Your task to perform on an android device: Open privacy settings Image 0: 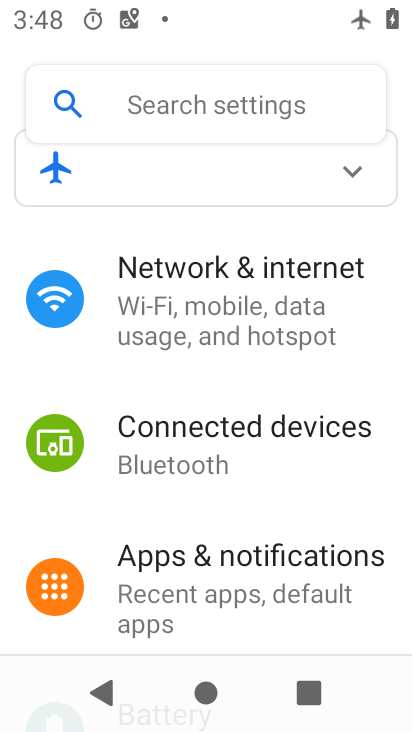
Step 0: drag from (190, 583) to (330, 22)
Your task to perform on an android device: Open privacy settings Image 1: 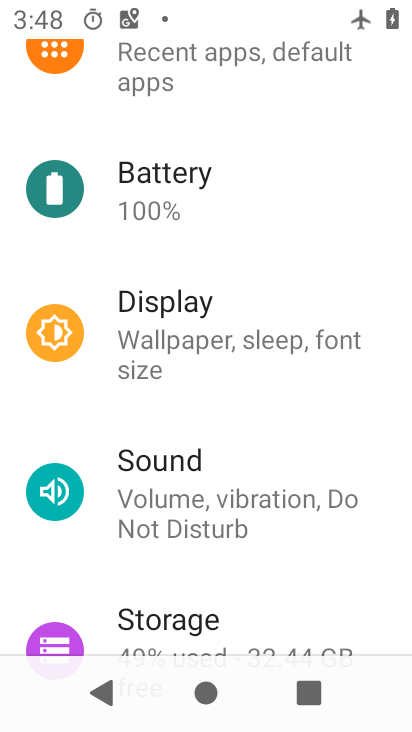
Step 1: drag from (183, 513) to (280, 59)
Your task to perform on an android device: Open privacy settings Image 2: 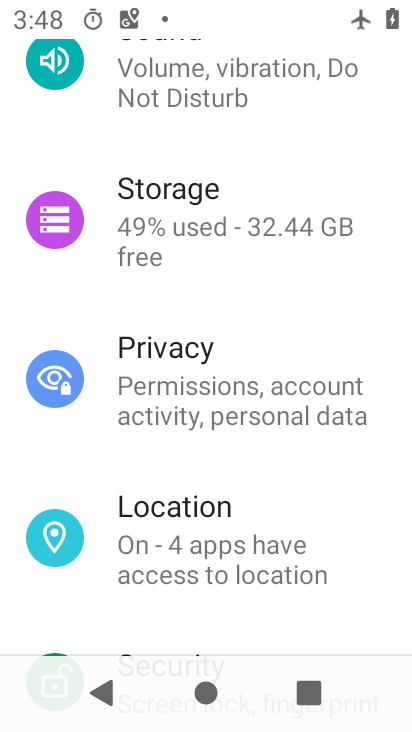
Step 2: drag from (191, 520) to (199, 657)
Your task to perform on an android device: Open privacy settings Image 3: 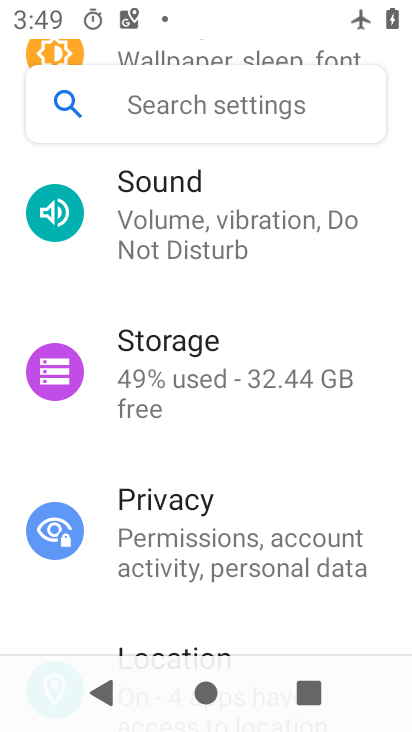
Step 3: click (147, 559)
Your task to perform on an android device: Open privacy settings Image 4: 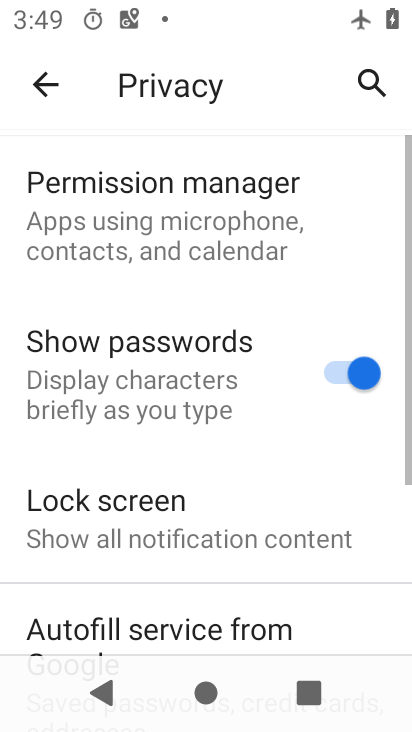
Step 4: task complete